Your task to perform on an android device: When is my next meeting? Image 0: 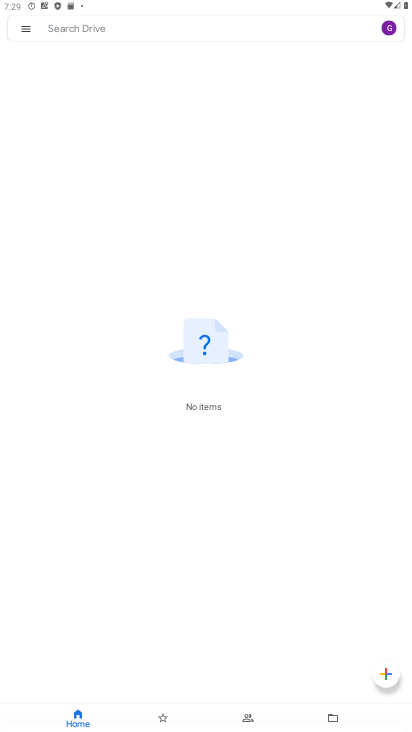
Step 0: press home button
Your task to perform on an android device: When is my next meeting? Image 1: 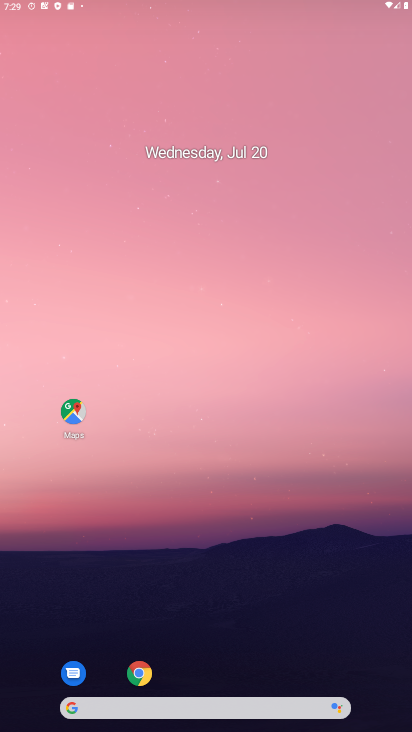
Step 1: drag from (384, 686) to (226, 22)
Your task to perform on an android device: When is my next meeting? Image 2: 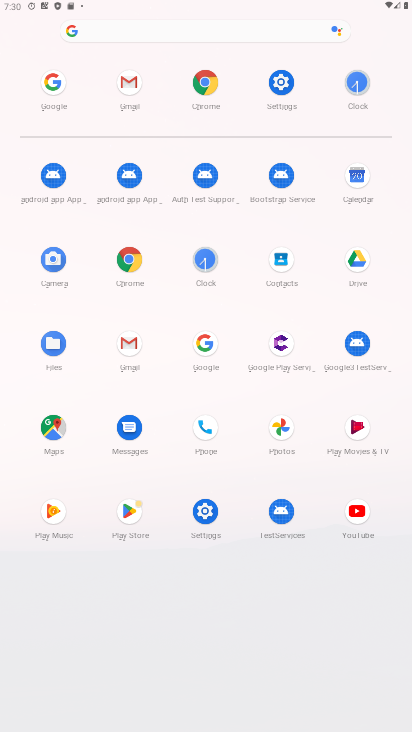
Step 2: click (348, 177)
Your task to perform on an android device: When is my next meeting? Image 3: 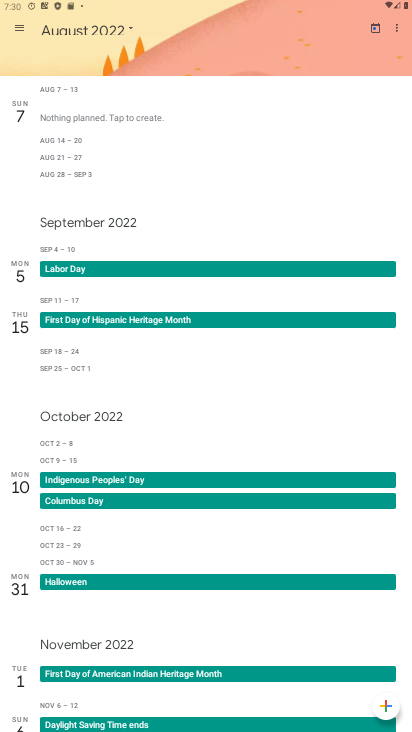
Step 3: task complete